Your task to perform on an android device: What is the news today? Image 0: 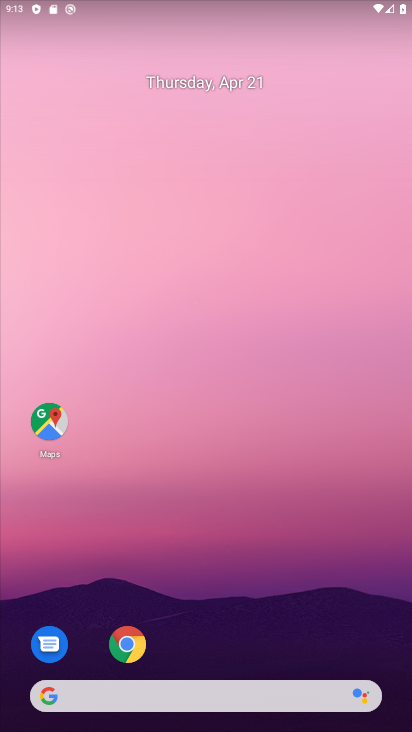
Step 0: click (127, 631)
Your task to perform on an android device: What is the news today? Image 1: 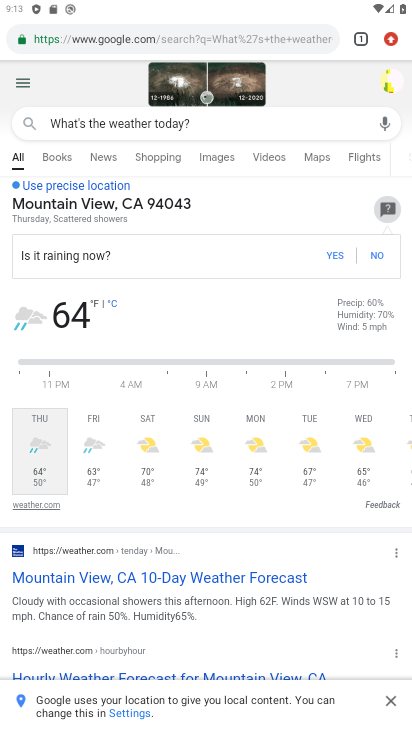
Step 1: click (200, 121)
Your task to perform on an android device: What is the news today? Image 2: 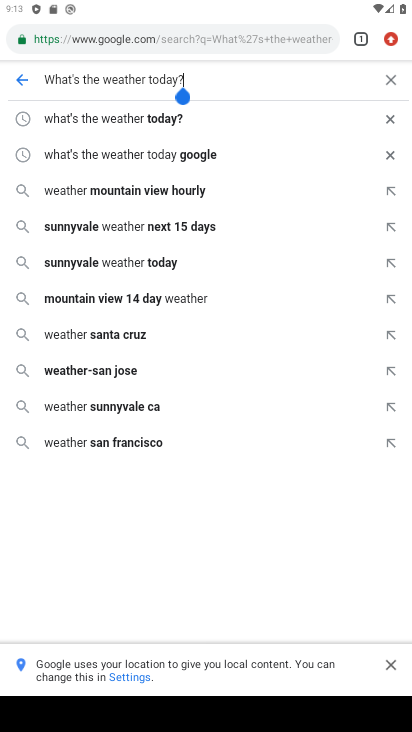
Step 2: click (396, 76)
Your task to perform on an android device: What is the news today? Image 3: 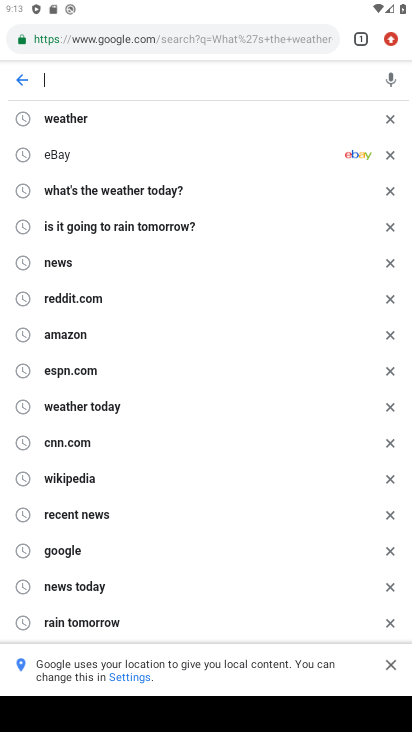
Step 3: type "what"
Your task to perform on an android device: What is the news today? Image 4: 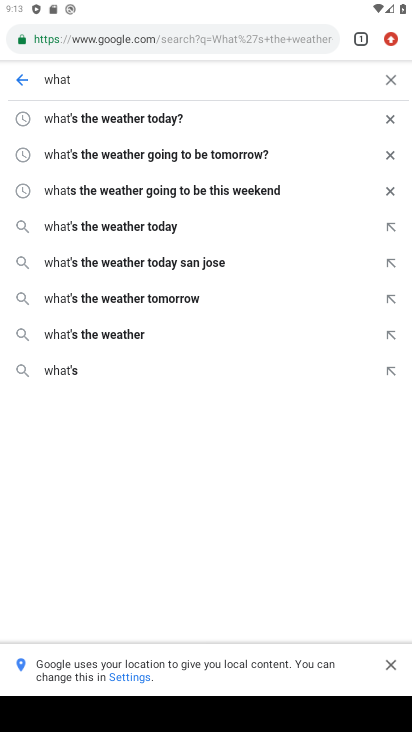
Step 4: type "What is the news today?"
Your task to perform on an android device: What is the news today? Image 5: 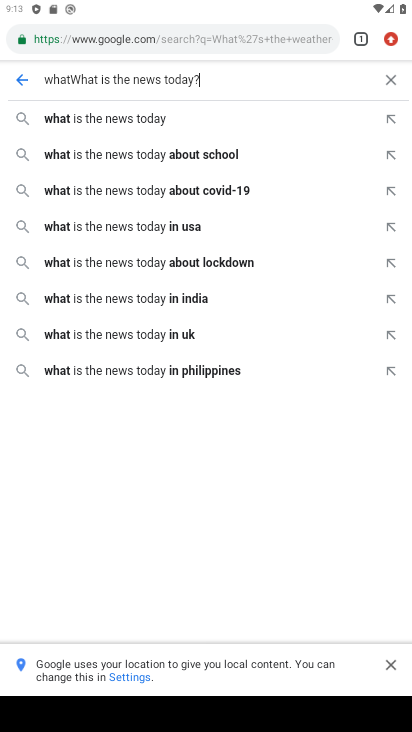
Step 5: click (164, 107)
Your task to perform on an android device: What is the news today? Image 6: 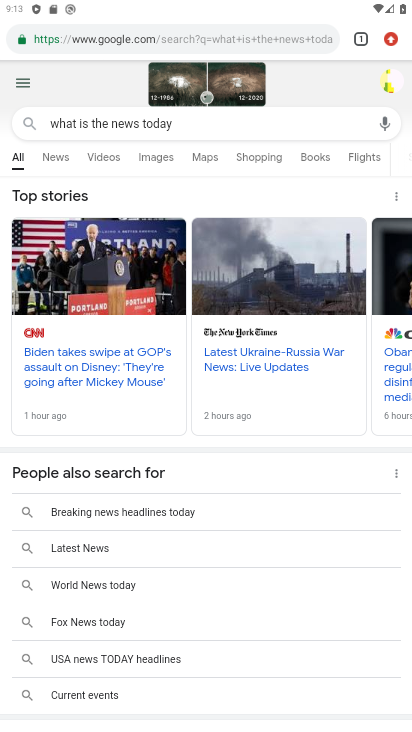
Step 6: task complete